Your task to perform on an android device: Go to eBay Image 0: 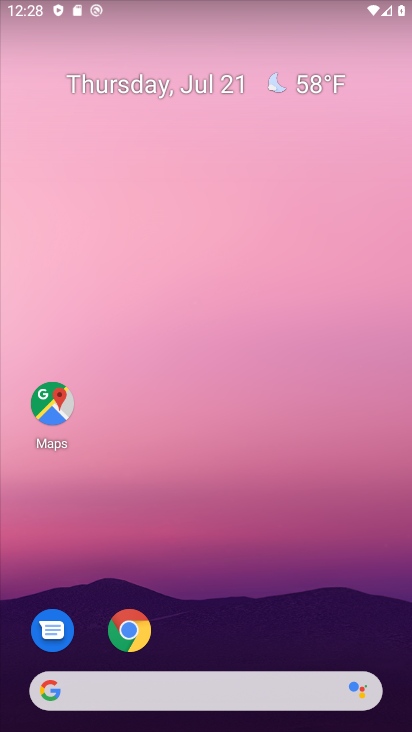
Step 0: drag from (181, 636) to (198, 125)
Your task to perform on an android device: Go to eBay Image 1: 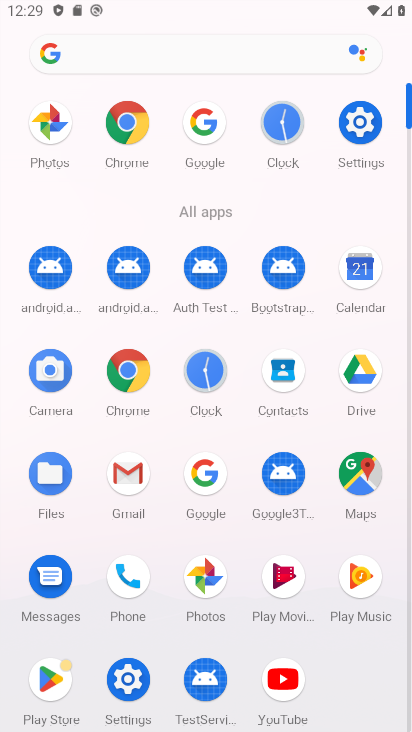
Step 1: click (198, 123)
Your task to perform on an android device: Go to eBay Image 2: 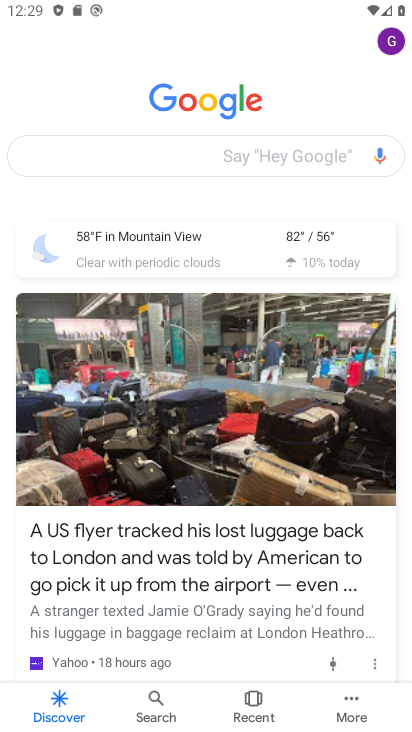
Step 2: click (143, 145)
Your task to perform on an android device: Go to eBay Image 3: 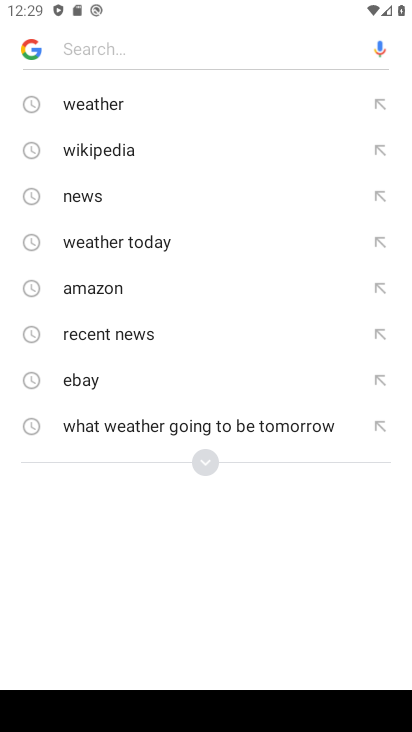
Step 3: click (97, 385)
Your task to perform on an android device: Go to eBay Image 4: 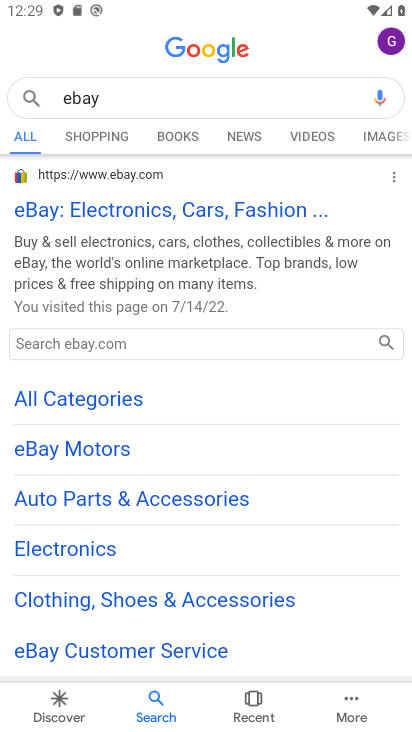
Step 4: click (150, 213)
Your task to perform on an android device: Go to eBay Image 5: 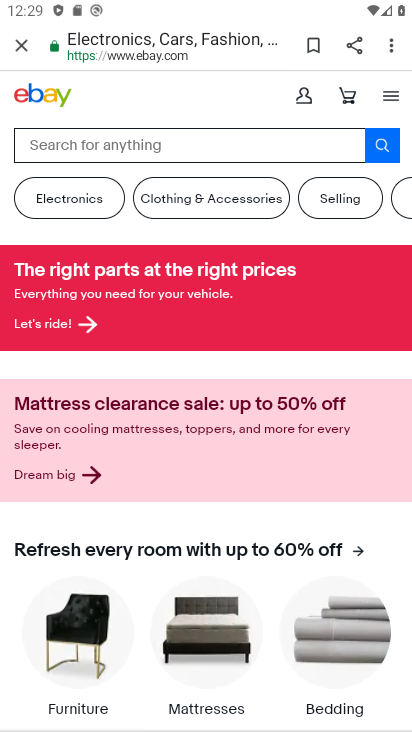
Step 5: task complete